Your task to perform on an android device: change notification settings in the gmail app Image 0: 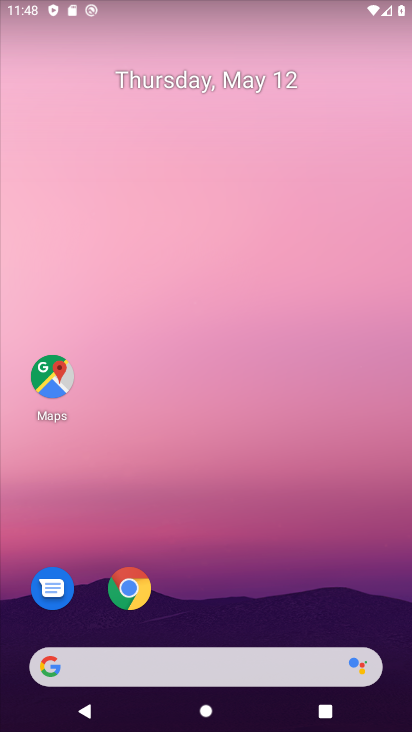
Step 0: drag from (272, 512) to (272, 148)
Your task to perform on an android device: change notification settings in the gmail app Image 1: 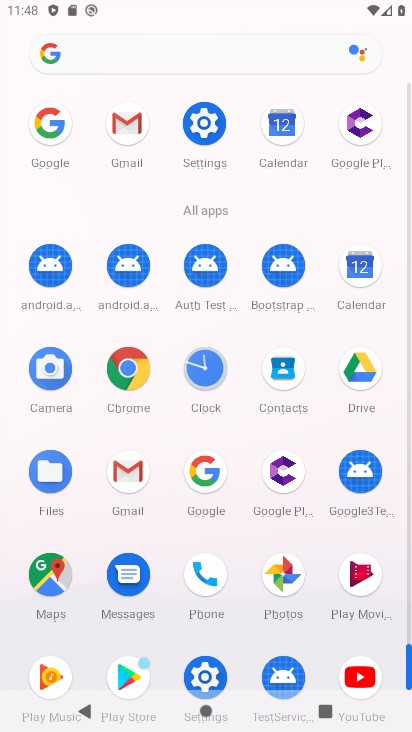
Step 1: click (116, 480)
Your task to perform on an android device: change notification settings in the gmail app Image 2: 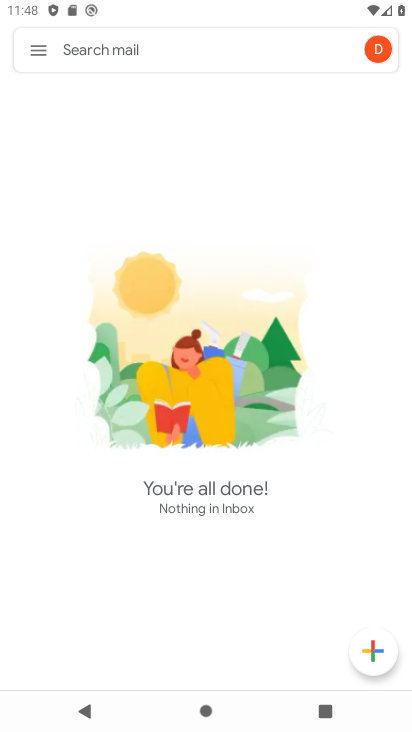
Step 2: click (46, 61)
Your task to perform on an android device: change notification settings in the gmail app Image 3: 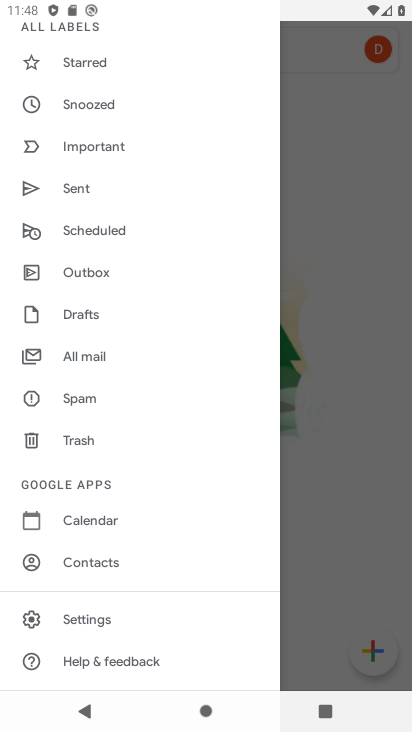
Step 3: click (79, 612)
Your task to perform on an android device: change notification settings in the gmail app Image 4: 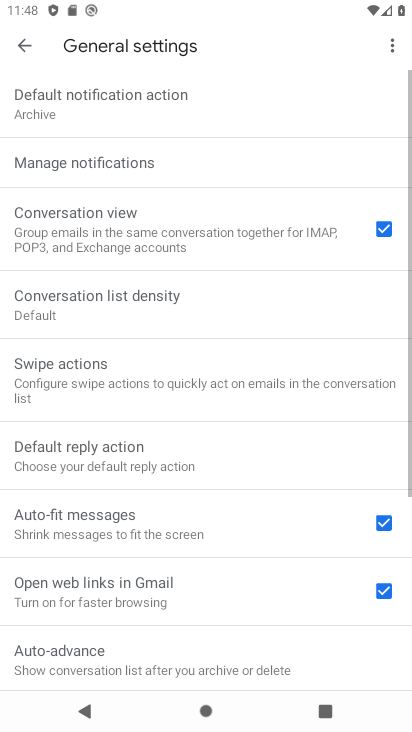
Step 4: click (207, 166)
Your task to perform on an android device: change notification settings in the gmail app Image 5: 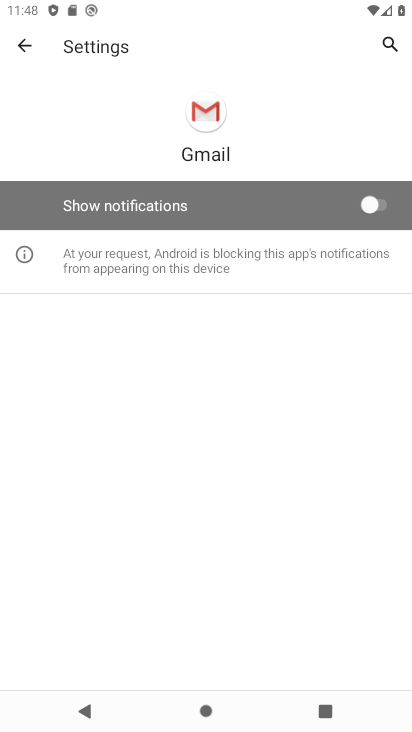
Step 5: click (377, 207)
Your task to perform on an android device: change notification settings in the gmail app Image 6: 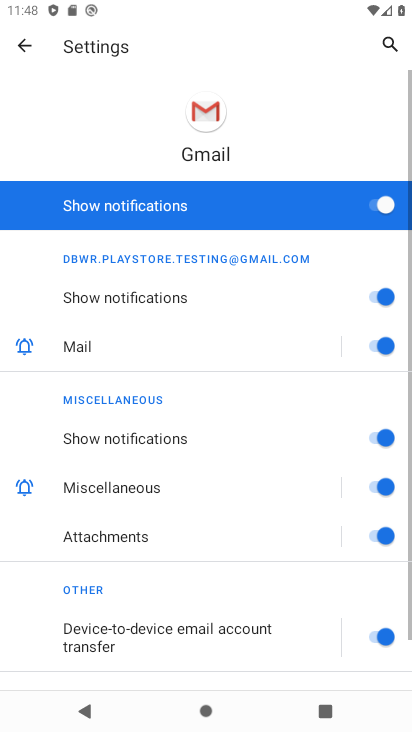
Step 6: task complete